Your task to perform on an android device: open a new tab in the chrome app Image 0: 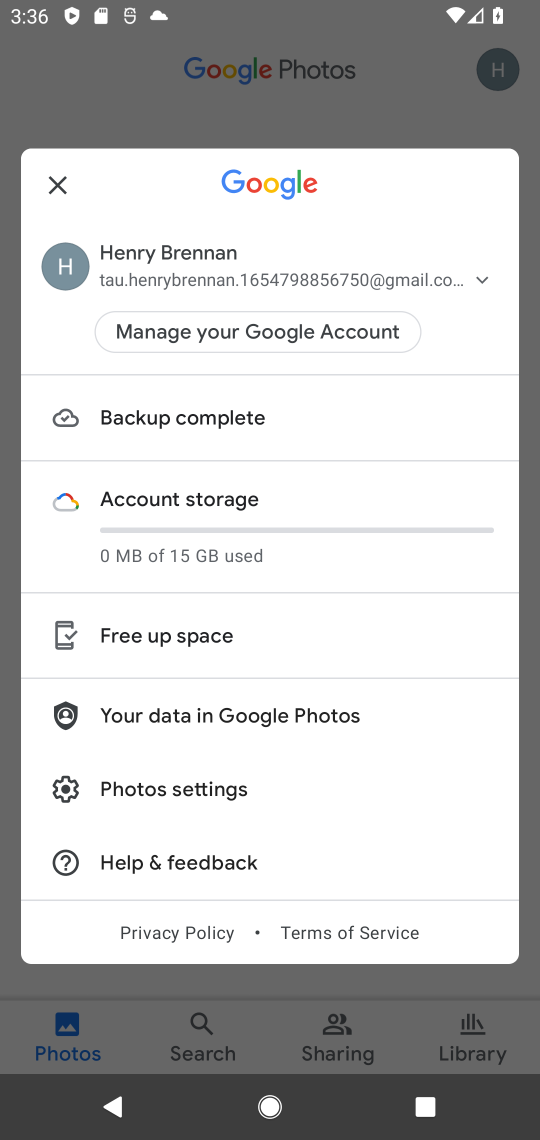
Step 0: press home button
Your task to perform on an android device: open a new tab in the chrome app Image 1: 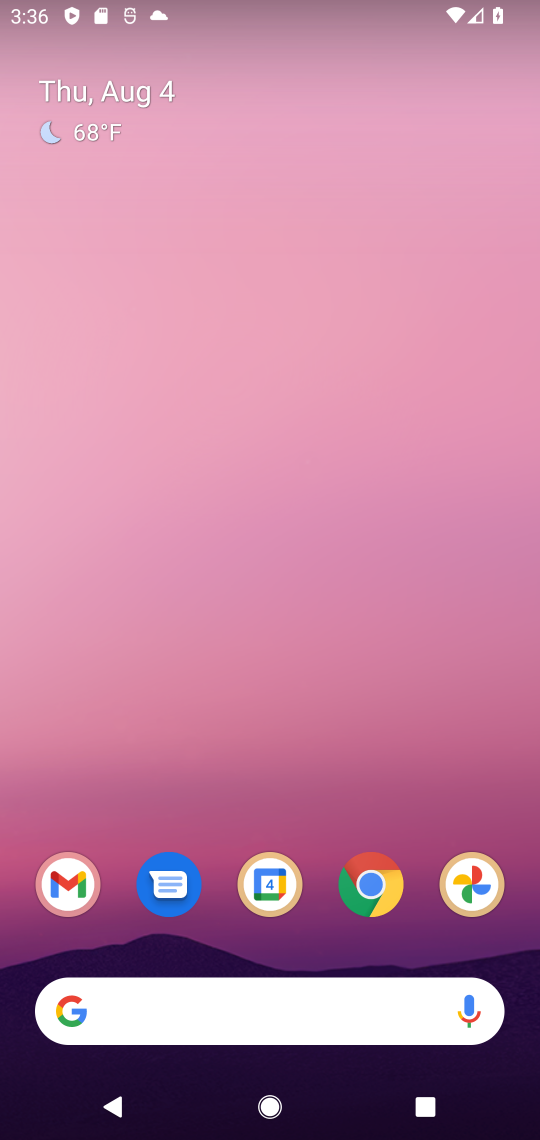
Step 1: drag from (313, 981) to (336, 276)
Your task to perform on an android device: open a new tab in the chrome app Image 2: 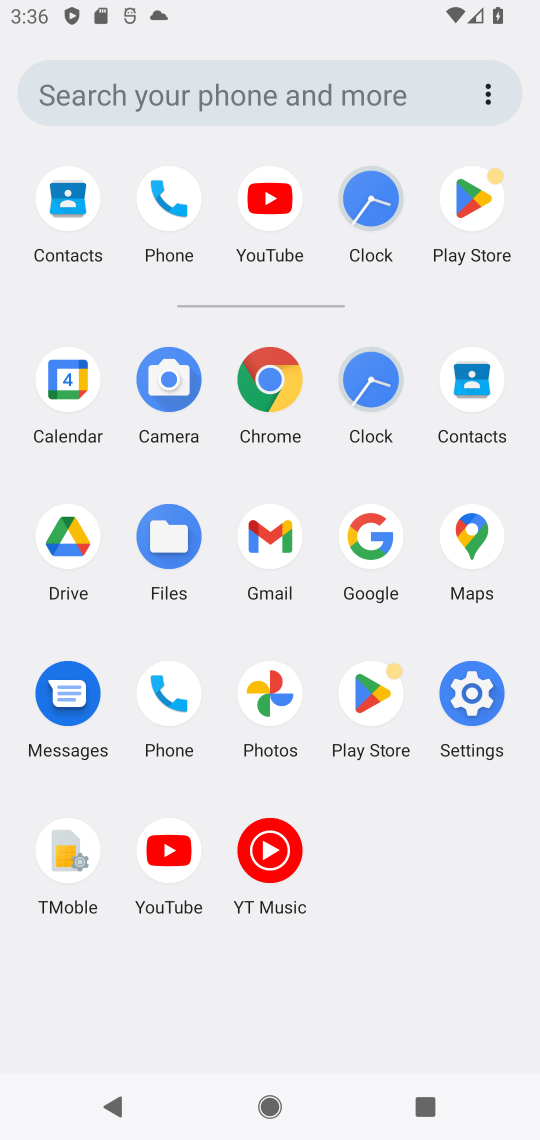
Step 2: click (258, 393)
Your task to perform on an android device: open a new tab in the chrome app Image 3: 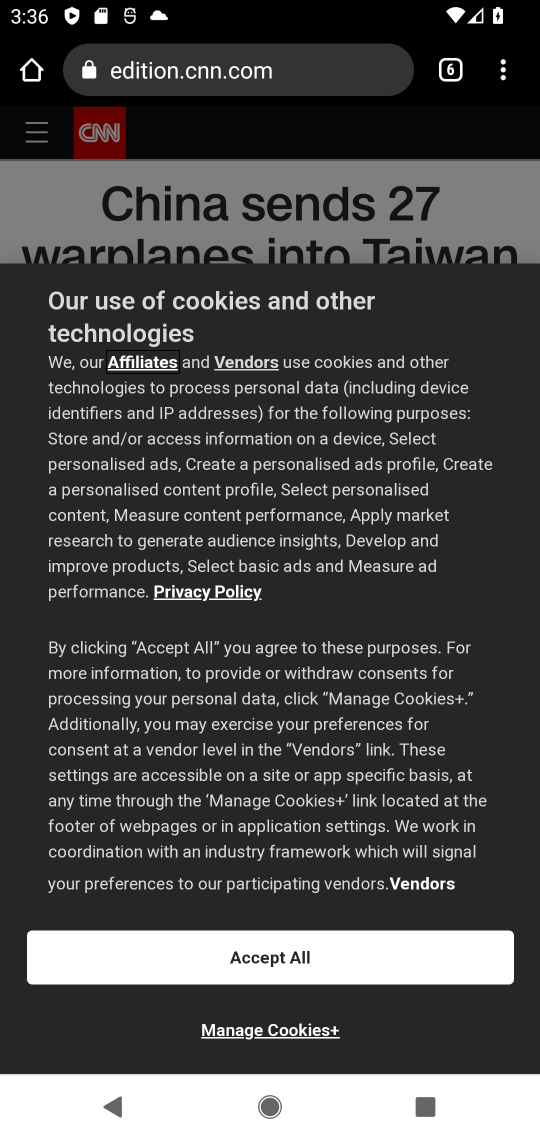
Step 3: click (503, 54)
Your task to perform on an android device: open a new tab in the chrome app Image 4: 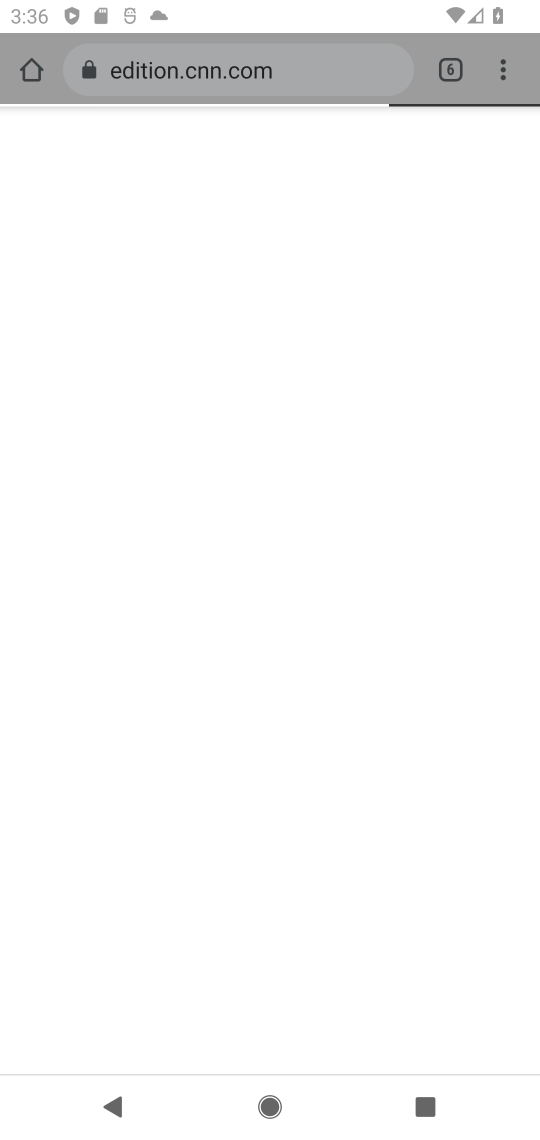
Step 4: click (529, 62)
Your task to perform on an android device: open a new tab in the chrome app Image 5: 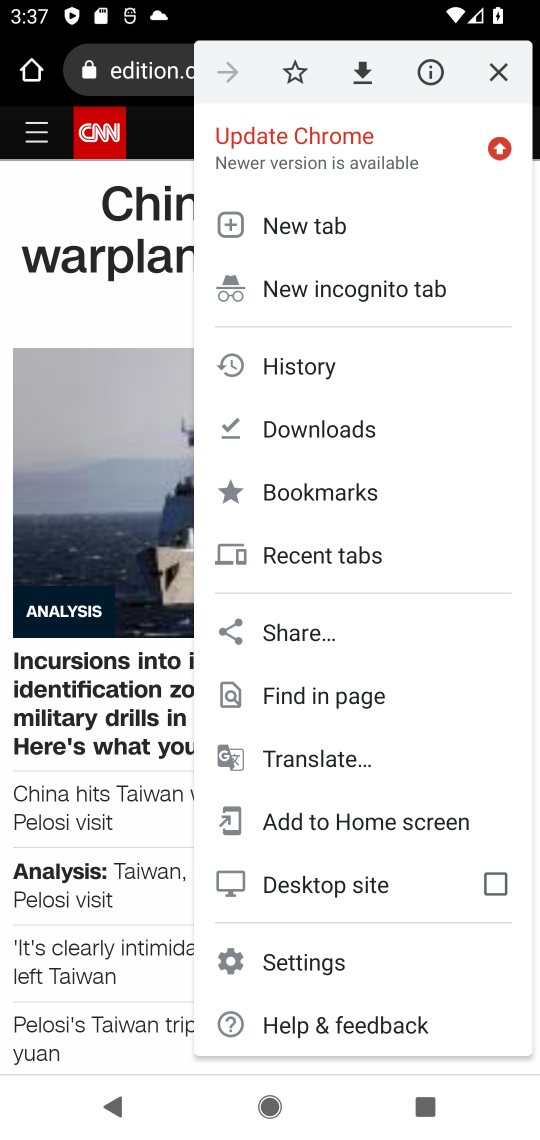
Step 5: click (304, 224)
Your task to perform on an android device: open a new tab in the chrome app Image 6: 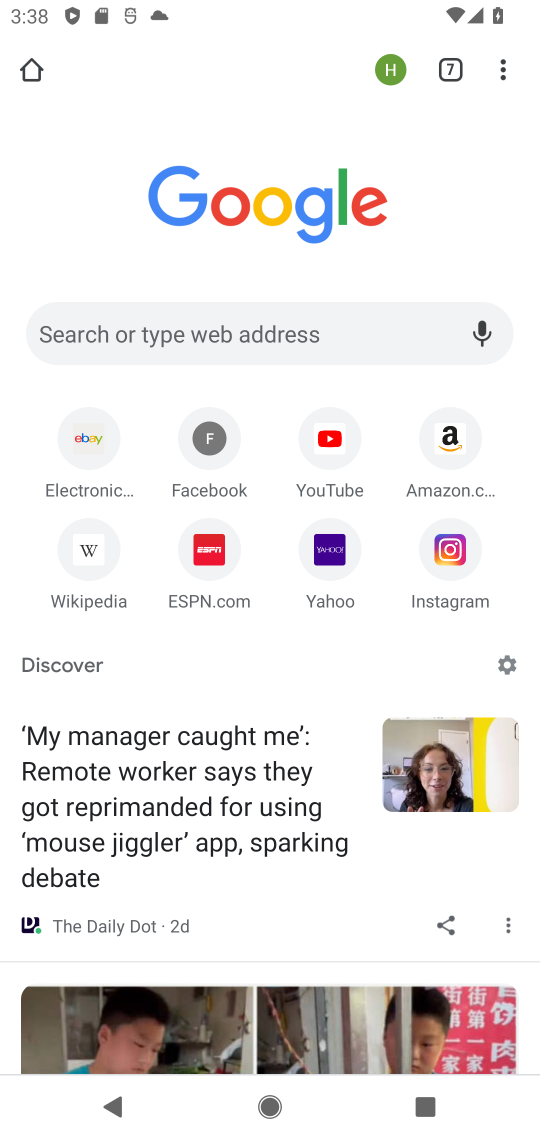
Step 6: task complete